Your task to perform on an android device: turn off wifi Image 0: 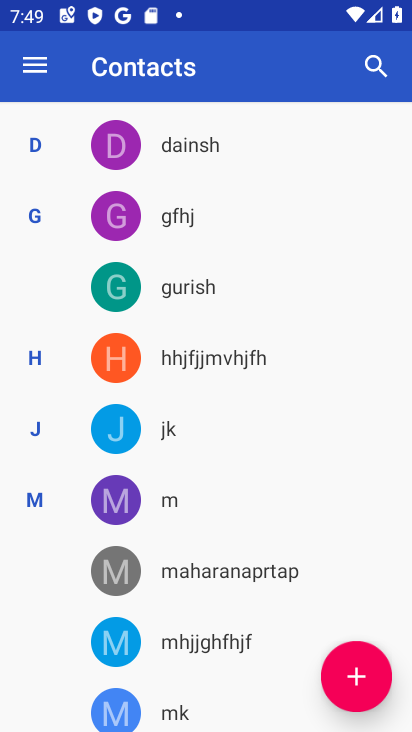
Step 0: press home button
Your task to perform on an android device: turn off wifi Image 1: 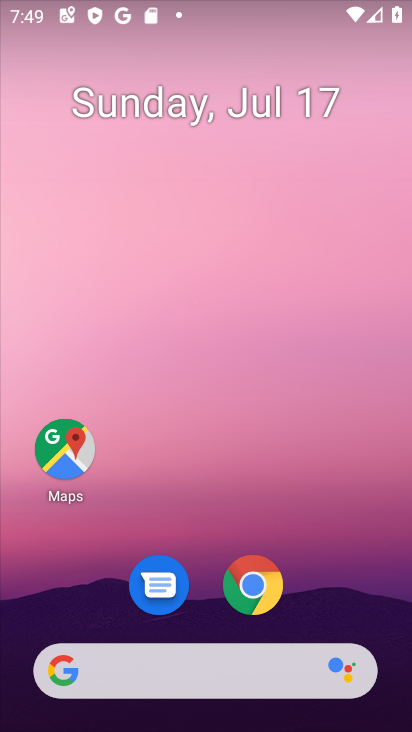
Step 1: drag from (333, 560) to (227, 59)
Your task to perform on an android device: turn off wifi Image 2: 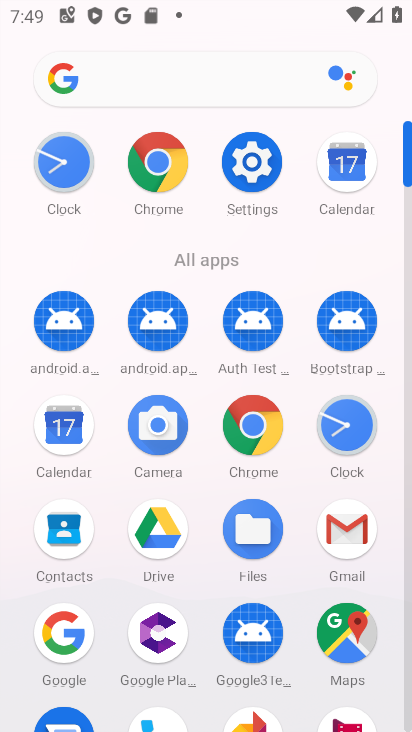
Step 2: click (254, 188)
Your task to perform on an android device: turn off wifi Image 3: 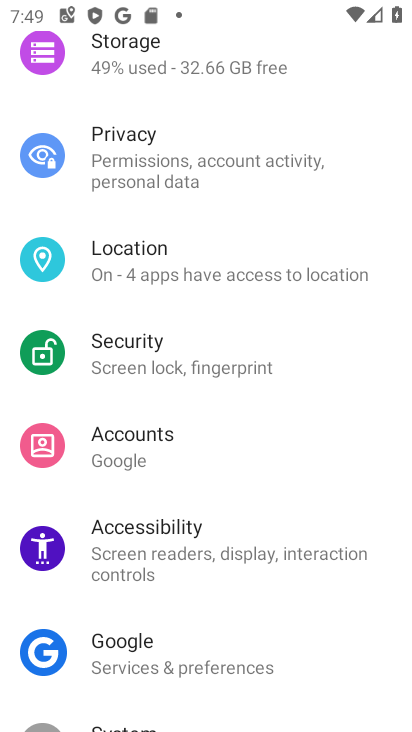
Step 3: drag from (251, 242) to (259, 702)
Your task to perform on an android device: turn off wifi Image 4: 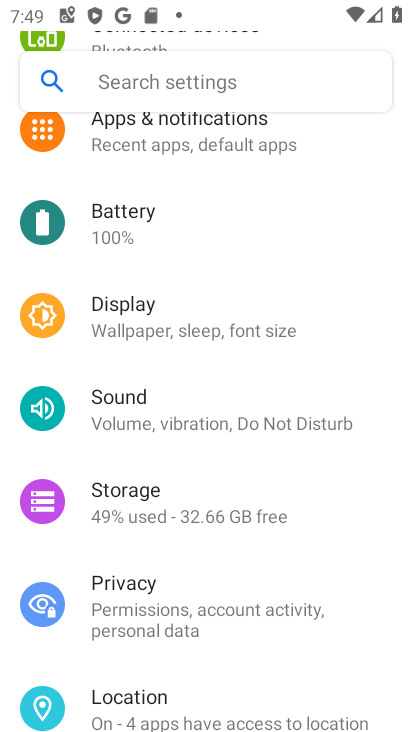
Step 4: drag from (238, 194) to (245, 677)
Your task to perform on an android device: turn off wifi Image 5: 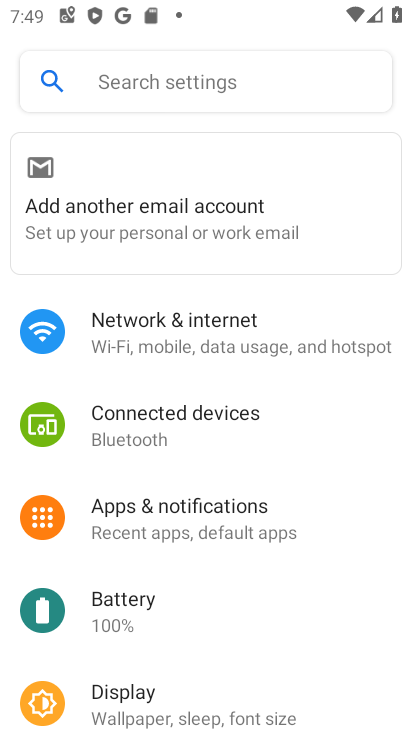
Step 5: click (198, 329)
Your task to perform on an android device: turn off wifi Image 6: 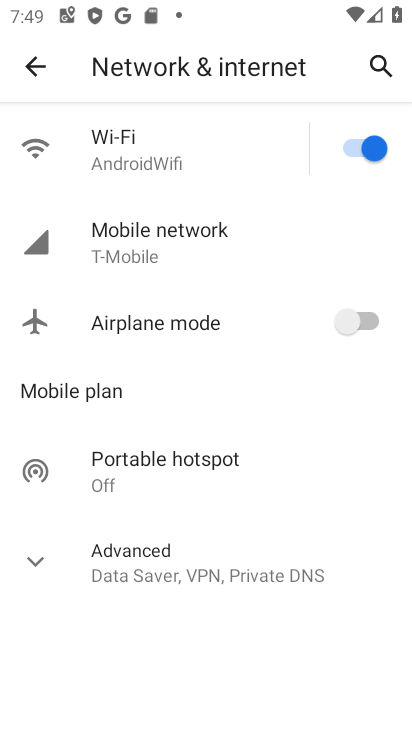
Step 6: click (367, 134)
Your task to perform on an android device: turn off wifi Image 7: 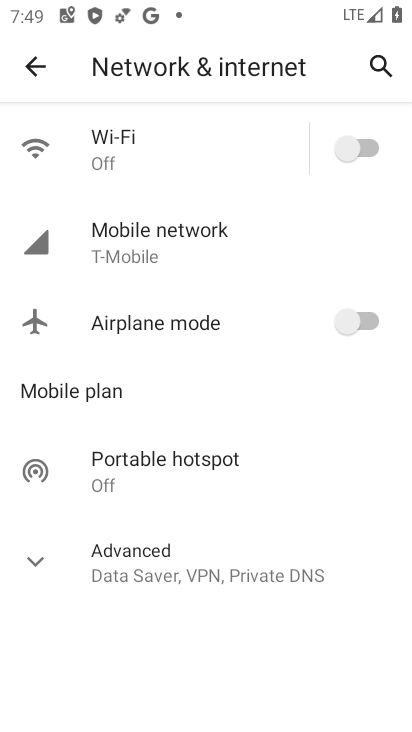
Step 7: task complete